Your task to perform on an android device: What's on my calendar tomorrow? Image 0: 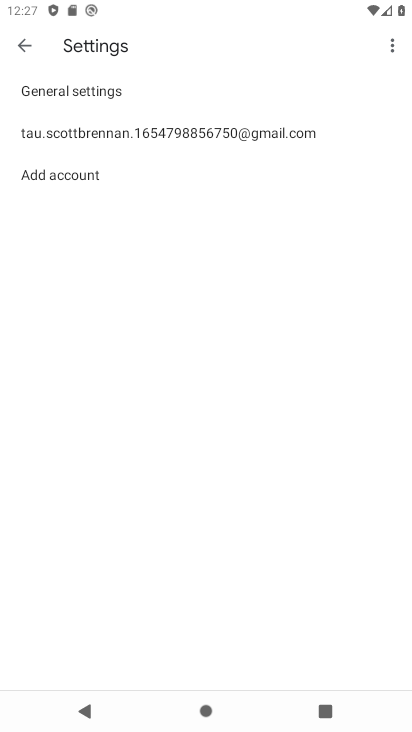
Step 0: press home button
Your task to perform on an android device: What's on my calendar tomorrow? Image 1: 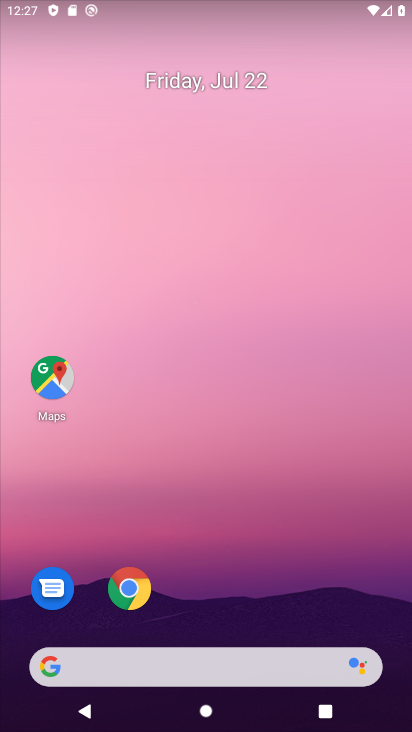
Step 1: drag from (242, 640) to (178, 114)
Your task to perform on an android device: What's on my calendar tomorrow? Image 2: 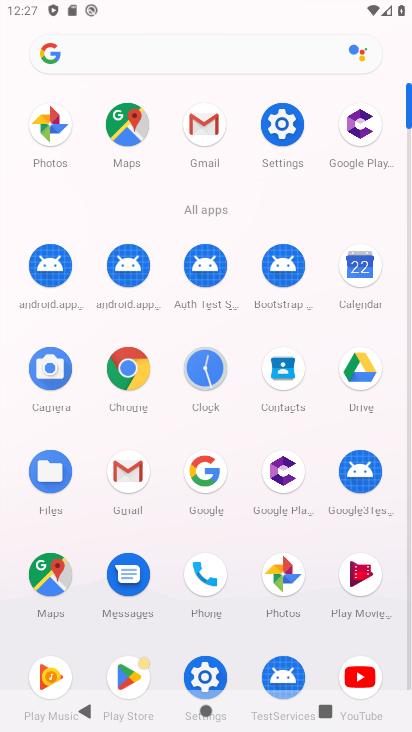
Step 2: click (342, 241)
Your task to perform on an android device: What's on my calendar tomorrow? Image 3: 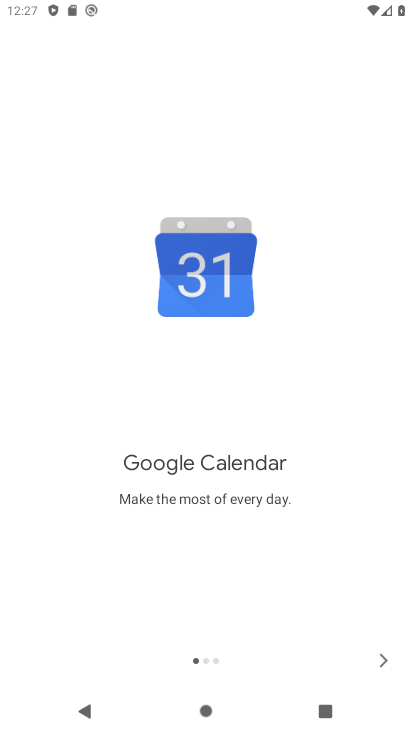
Step 3: click (390, 672)
Your task to perform on an android device: What's on my calendar tomorrow? Image 4: 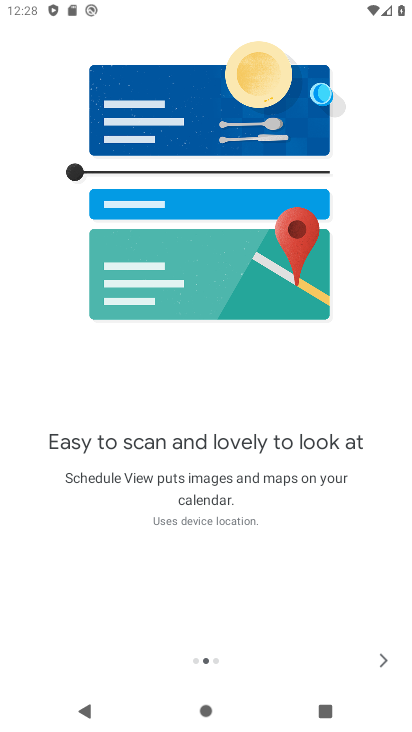
Step 4: click (390, 672)
Your task to perform on an android device: What's on my calendar tomorrow? Image 5: 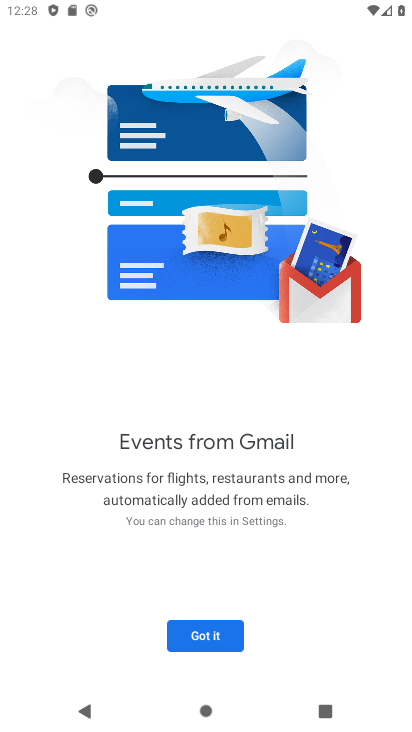
Step 5: click (390, 672)
Your task to perform on an android device: What's on my calendar tomorrow? Image 6: 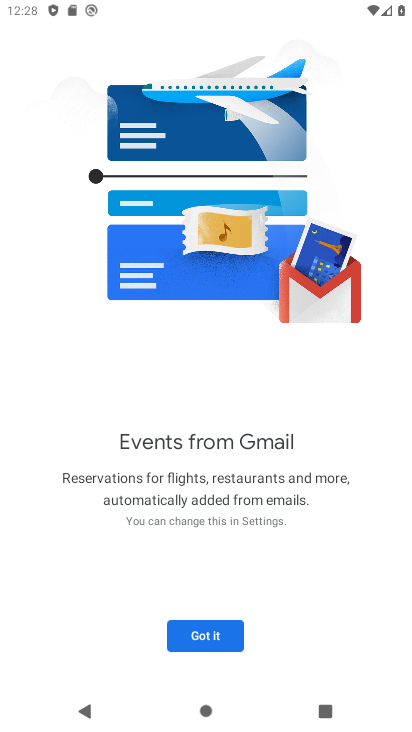
Step 6: click (246, 626)
Your task to perform on an android device: What's on my calendar tomorrow? Image 7: 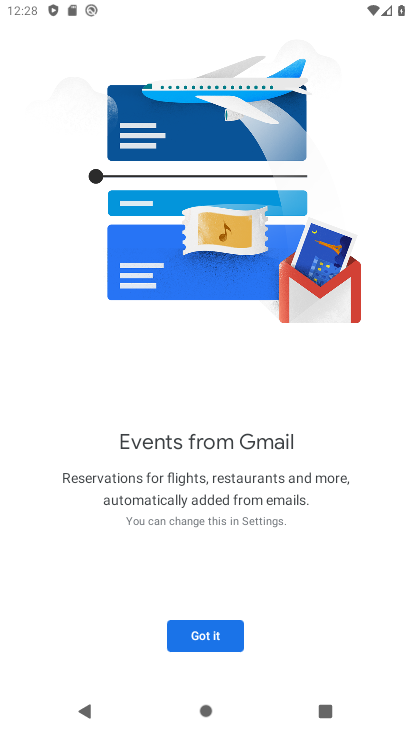
Step 7: click (229, 625)
Your task to perform on an android device: What's on my calendar tomorrow? Image 8: 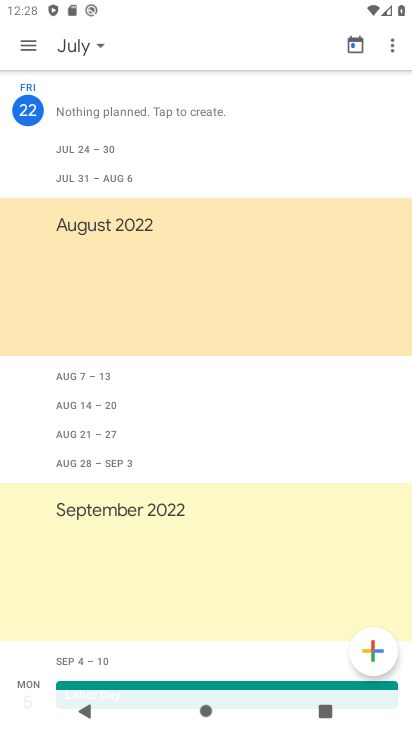
Step 8: click (20, 51)
Your task to perform on an android device: What's on my calendar tomorrow? Image 9: 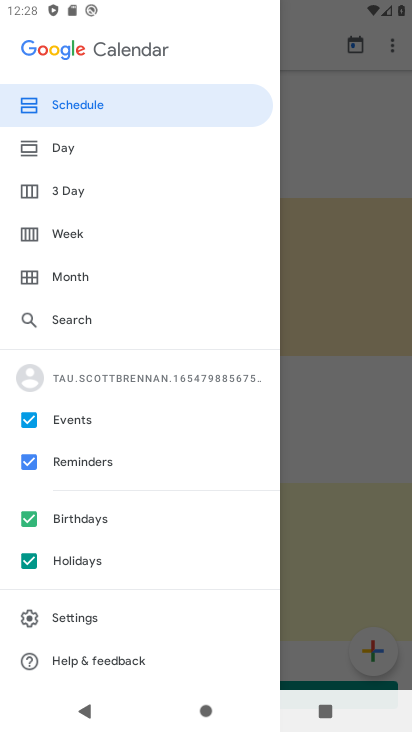
Step 9: click (63, 226)
Your task to perform on an android device: What's on my calendar tomorrow? Image 10: 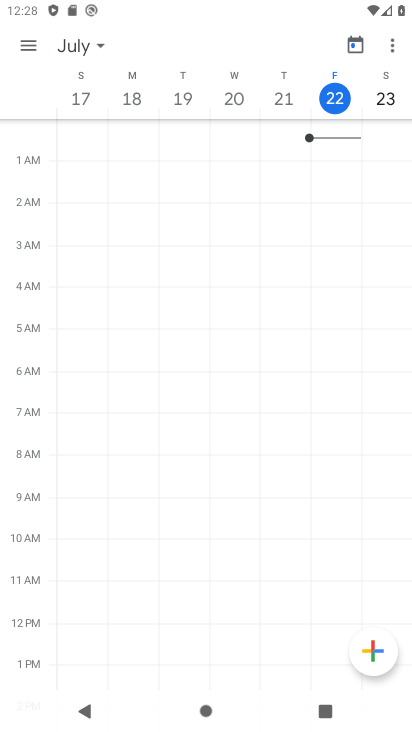
Step 10: click (388, 96)
Your task to perform on an android device: What's on my calendar tomorrow? Image 11: 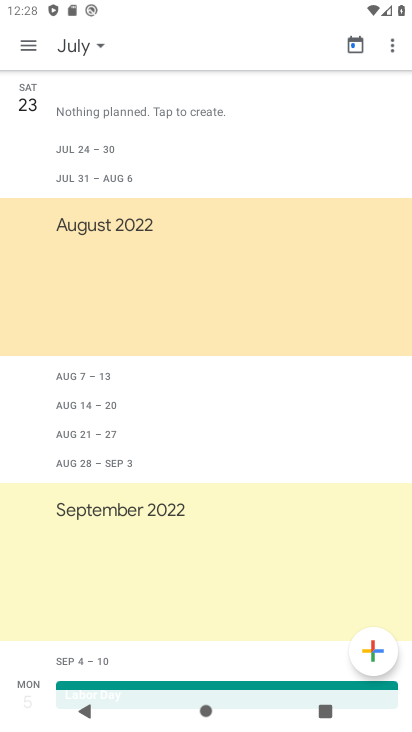
Step 11: task complete